Your task to perform on an android device: Open display settings Image 0: 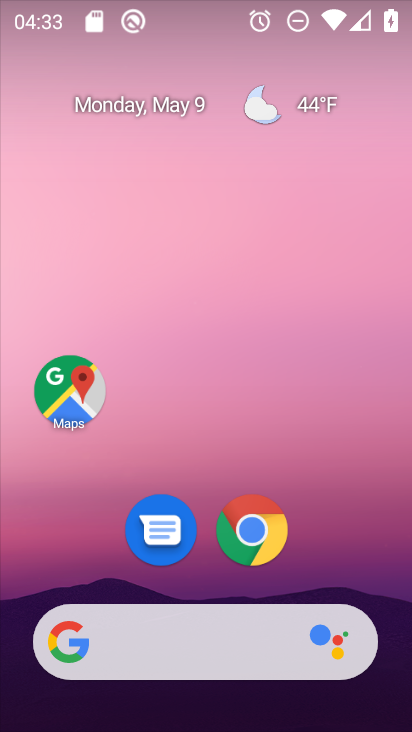
Step 0: drag from (207, 583) to (290, 8)
Your task to perform on an android device: Open display settings Image 1: 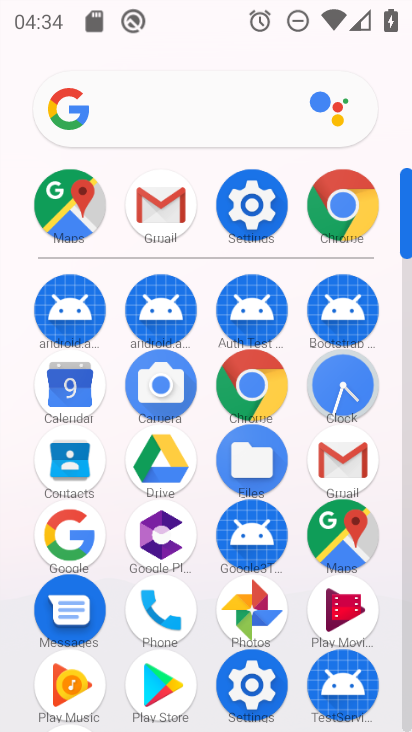
Step 1: click (249, 200)
Your task to perform on an android device: Open display settings Image 2: 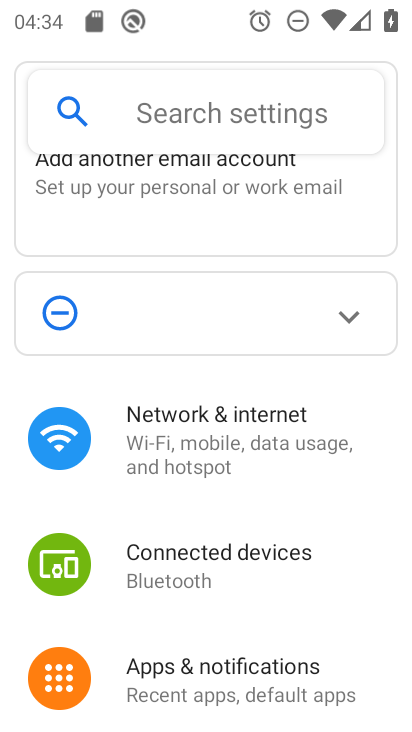
Step 2: drag from (235, 680) to (258, 155)
Your task to perform on an android device: Open display settings Image 3: 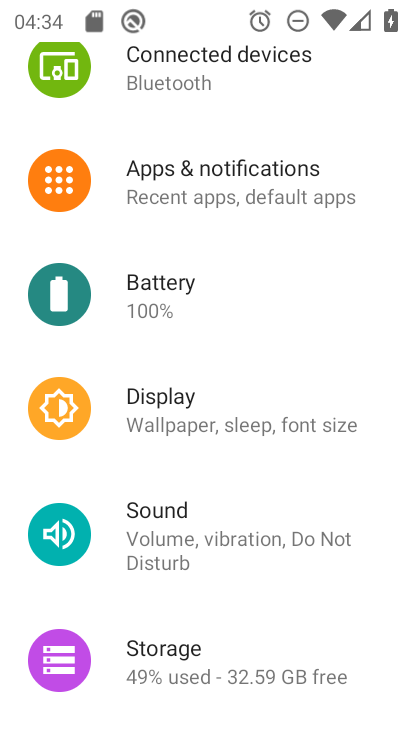
Step 3: click (213, 398)
Your task to perform on an android device: Open display settings Image 4: 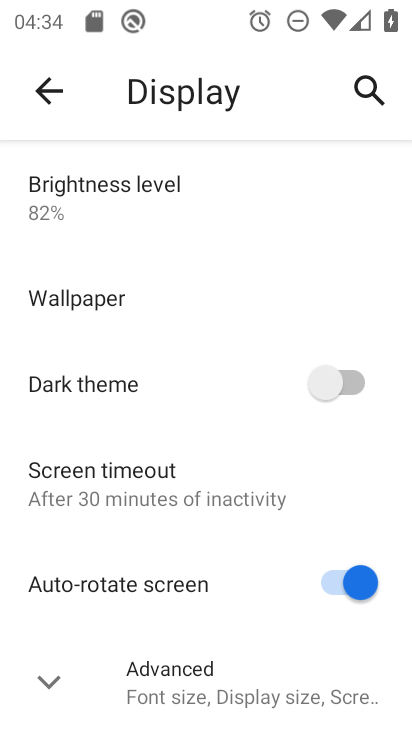
Step 4: click (47, 684)
Your task to perform on an android device: Open display settings Image 5: 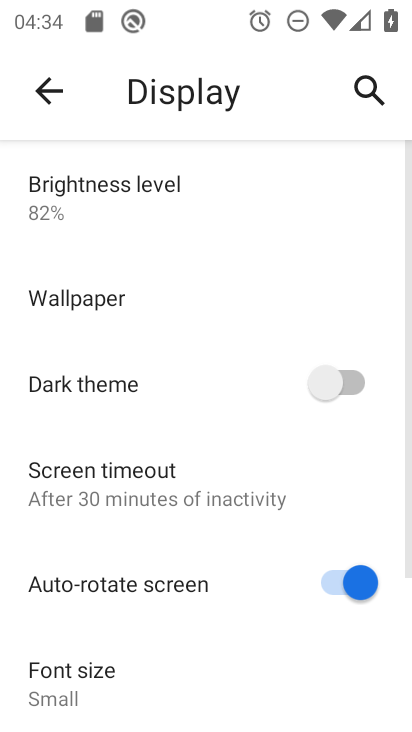
Step 5: task complete